Your task to perform on an android device: Open the calendar app, open the side menu, and click the "Day" option Image 0: 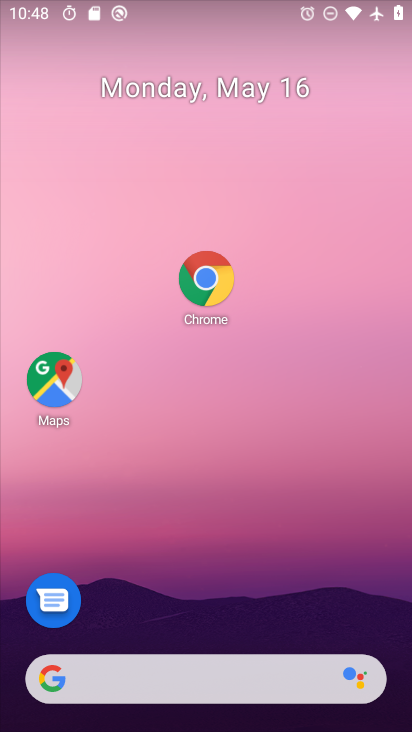
Step 0: drag from (185, 671) to (297, 214)
Your task to perform on an android device: Open the calendar app, open the side menu, and click the "Day" option Image 1: 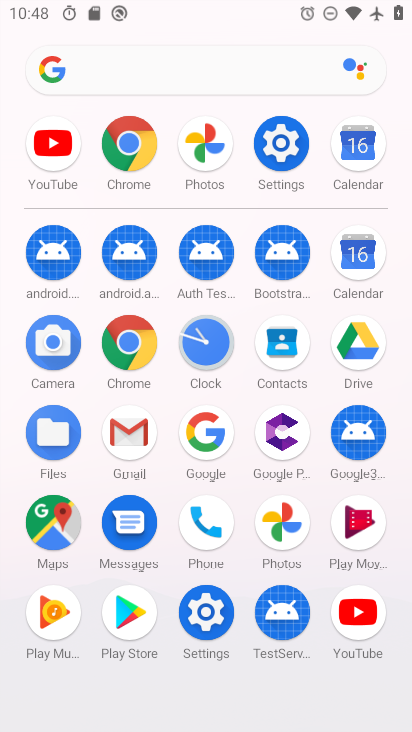
Step 1: click (353, 270)
Your task to perform on an android device: Open the calendar app, open the side menu, and click the "Day" option Image 2: 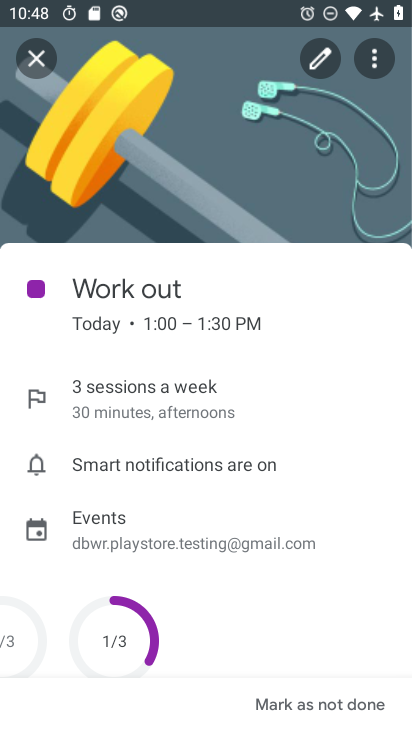
Step 2: click (34, 56)
Your task to perform on an android device: Open the calendar app, open the side menu, and click the "Day" option Image 3: 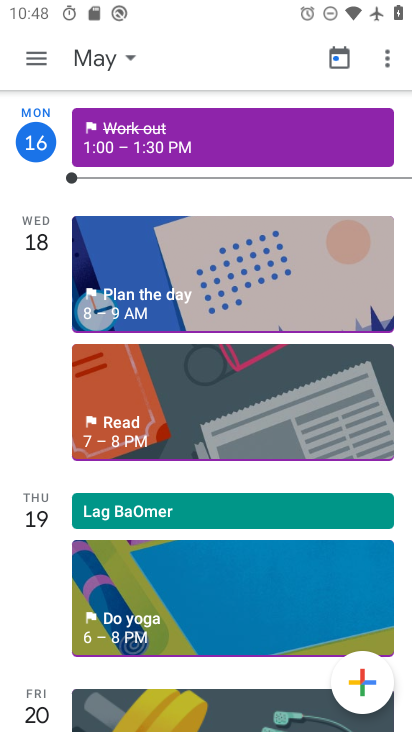
Step 3: click (34, 55)
Your task to perform on an android device: Open the calendar app, open the side menu, and click the "Day" option Image 4: 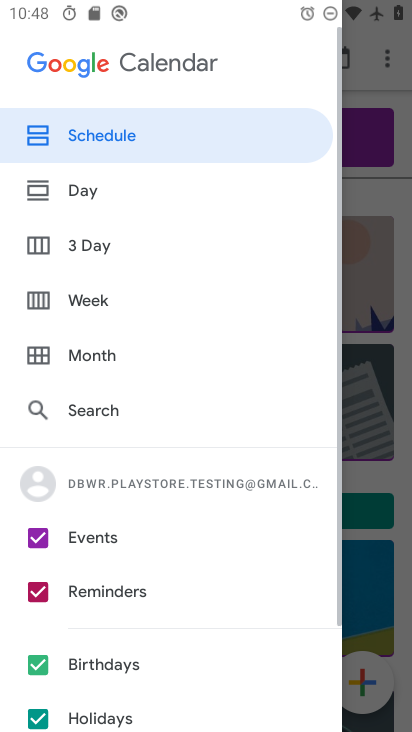
Step 4: click (90, 185)
Your task to perform on an android device: Open the calendar app, open the side menu, and click the "Day" option Image 5: 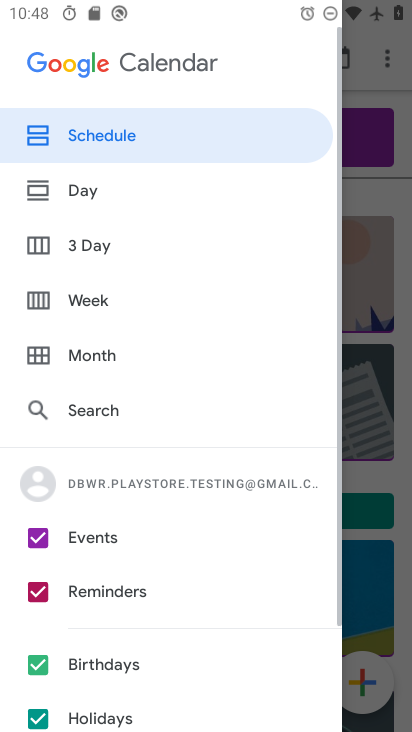
Step 5: click (83, 186)
Your task to perform on an android device: Open the calendar app, open the side menu, and click the "Day" option Image 6: 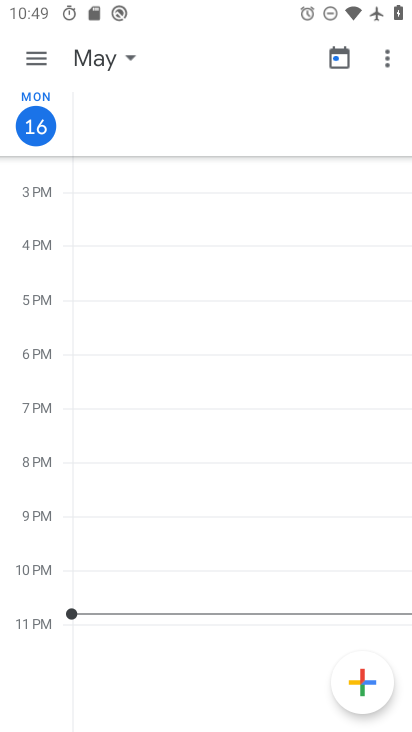
Step 6: task complete